Your task to perform on an android device: uninstall "Etsy: Buy & Sell Unique Items" Image 0: 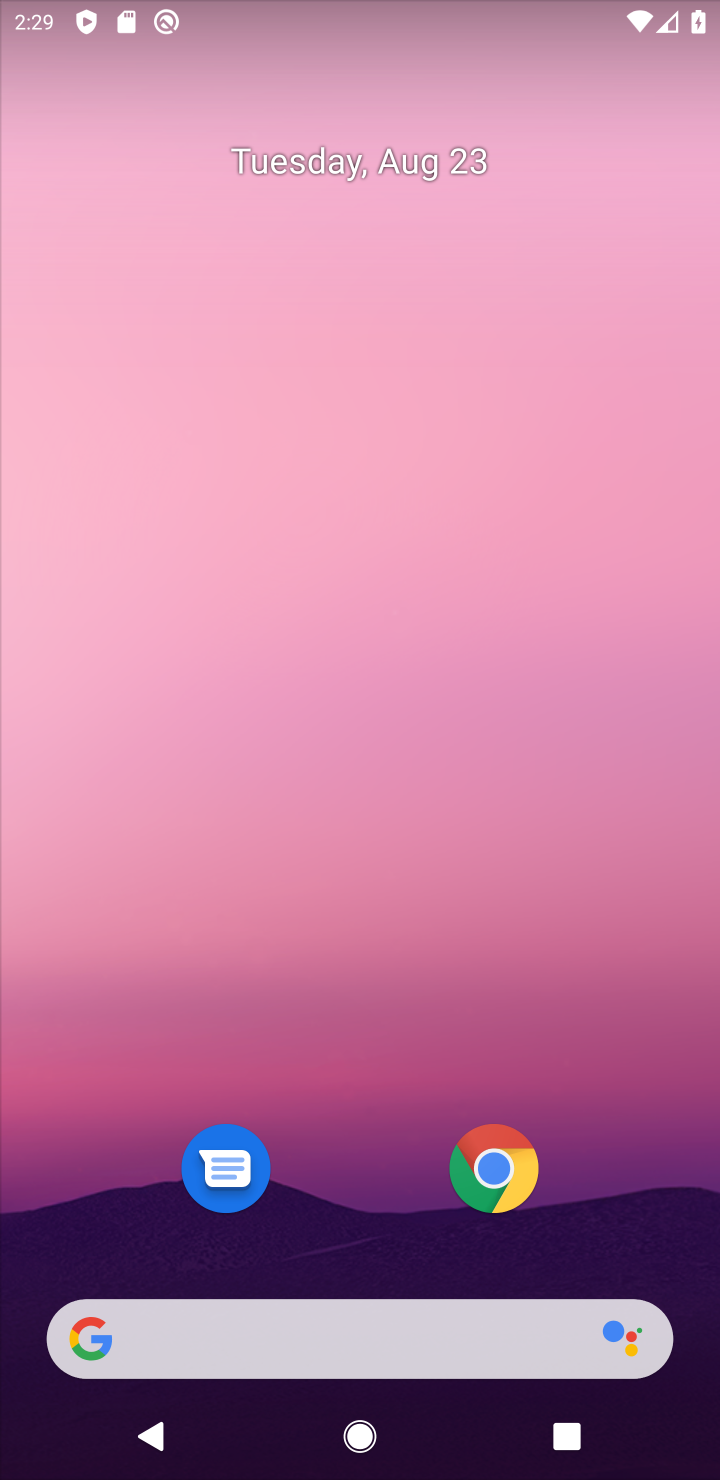
Step 0: drag from (420, 626) to (420, 264)
Your task to perform on an android device: uninstall "Etsy: Buy & Sell Unique Items" Image 1: 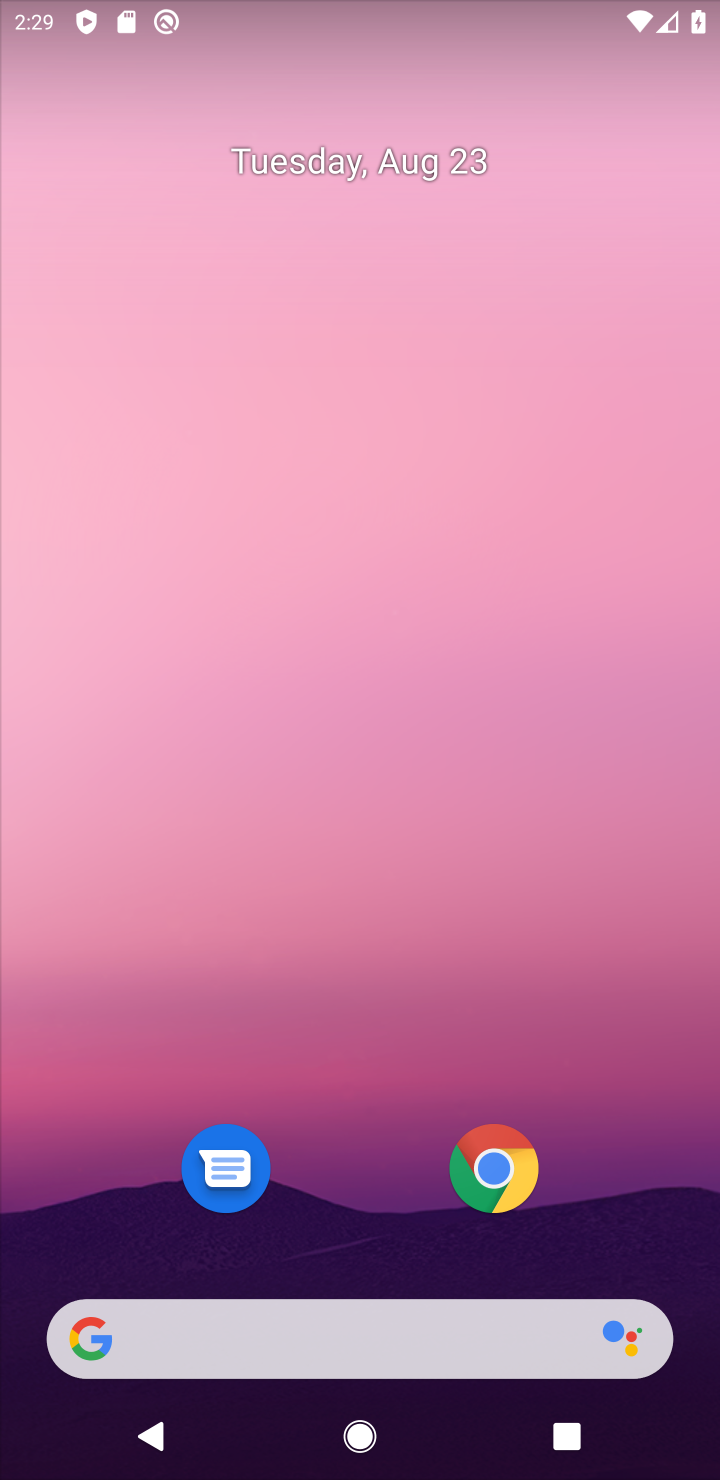
Step 1: drag from (307, 1040) to (304, 266)
Your task to perform on an android device: uninstall "Etsy: Buy & Sell Unique Items" Image 2: 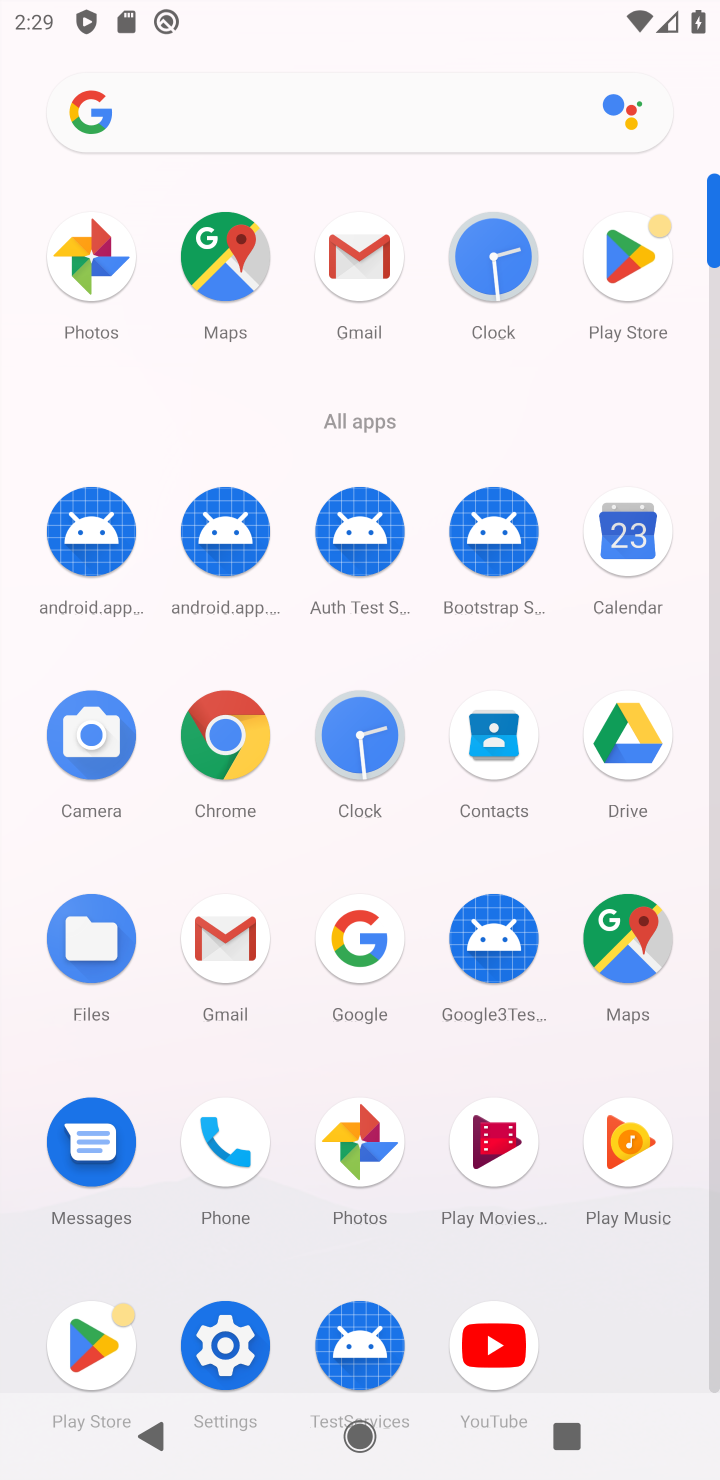
Step 2: click (70, 1355)
Your task to perform on an android device: uninstall "Etsy: Buy & Sell Unique Items" Image 3: 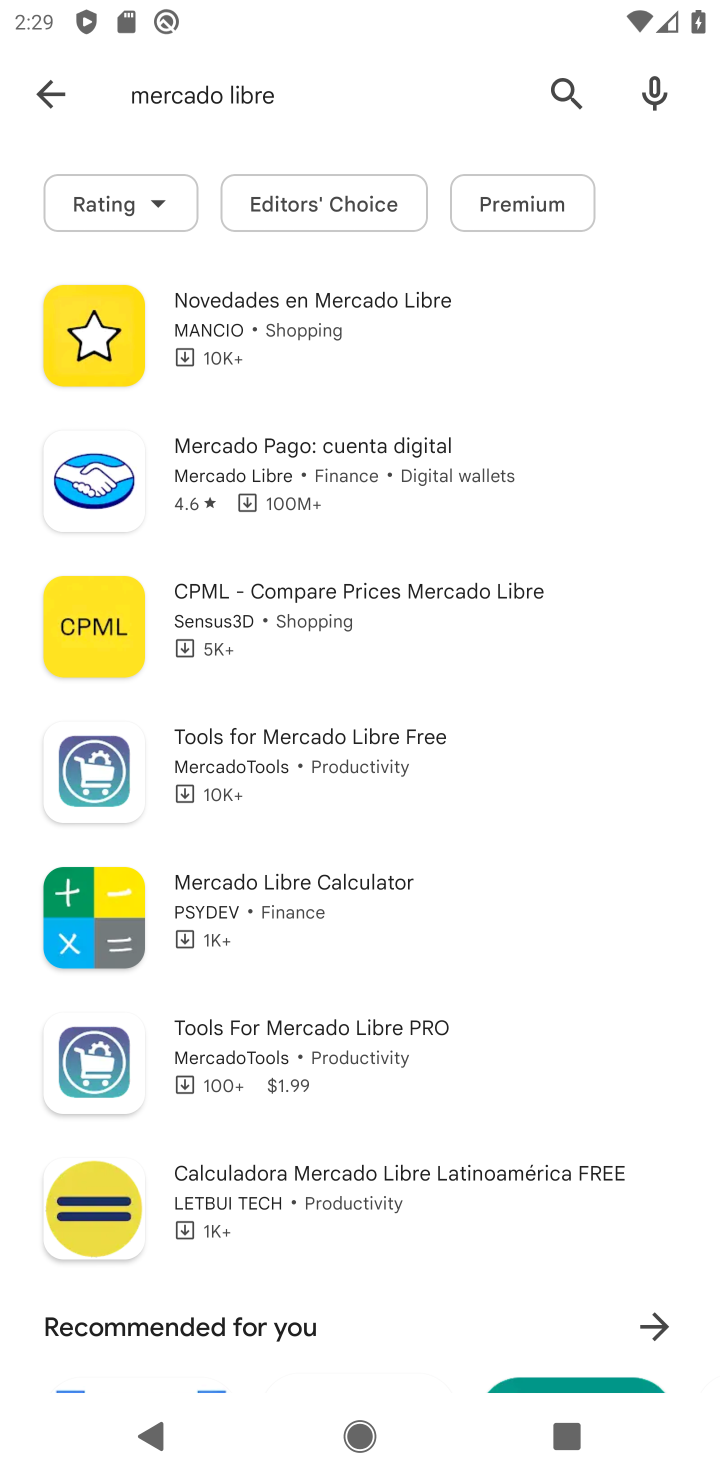
Step 3: click (576, 93)
Your task to perform on an android device: uninstall "Etsy: Buy & Sell Unique Items" Image 4: 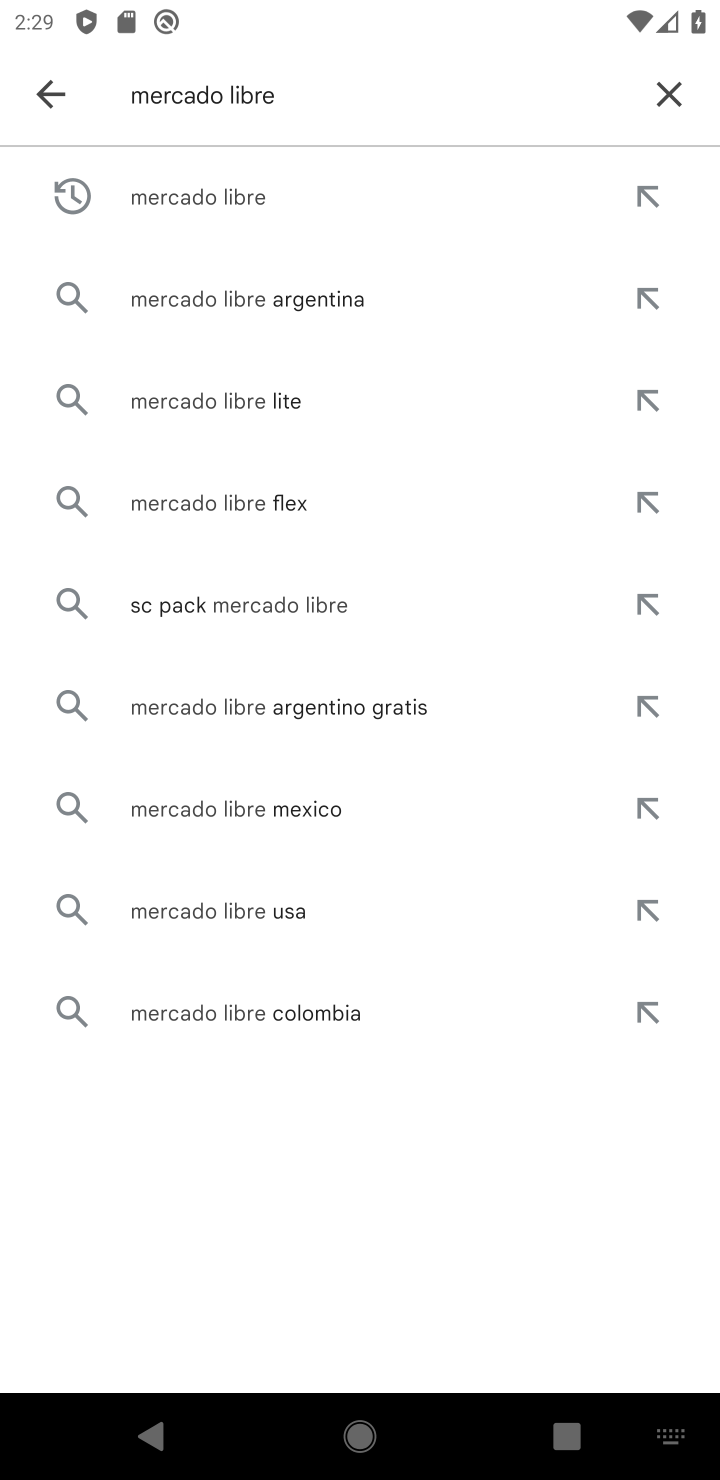
Step 4: click (677, 100)
Your task to perform on an android device: uninstall "Etsy: Buy & Sell Unique Items" Image 5: 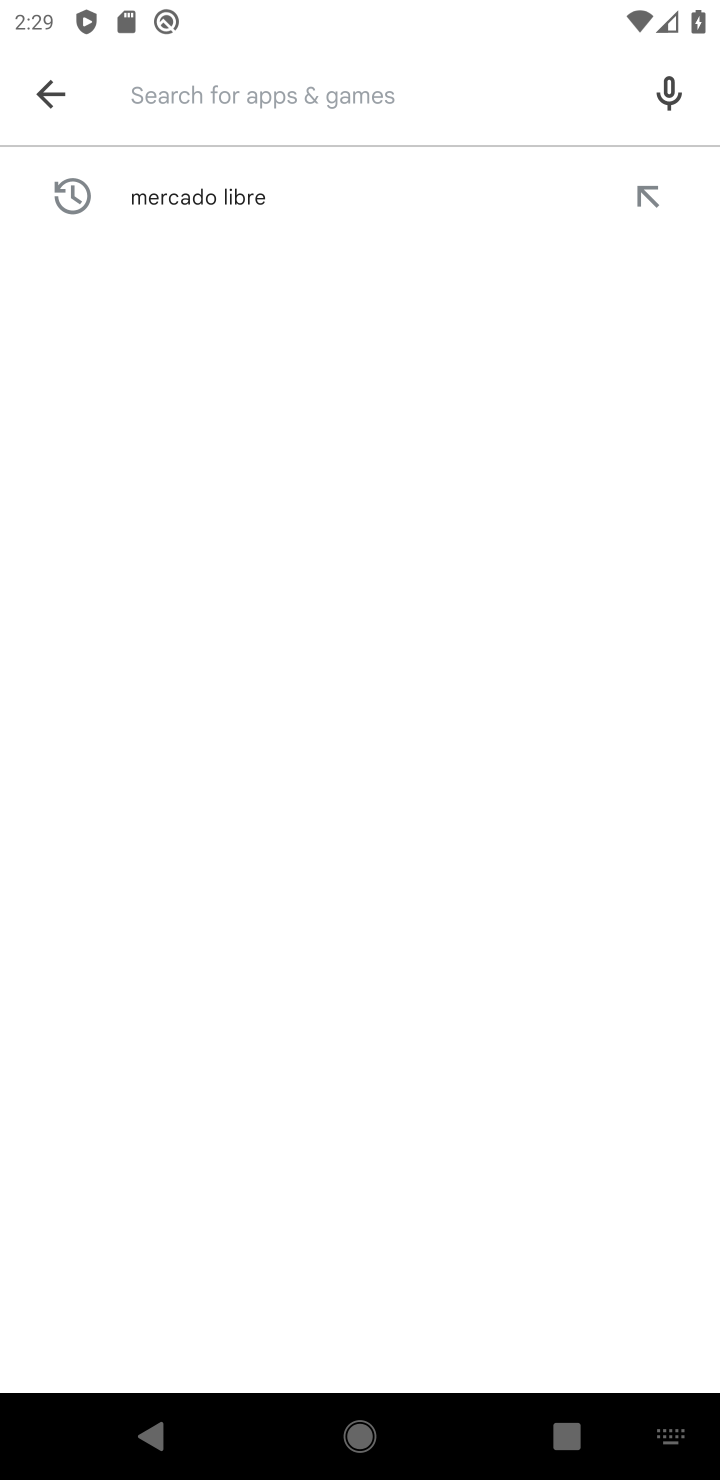
Step 5: type "Etsy: Buy & Sell Unique Items"
Your task to perform on an android device: uninstall "Etsy: Buy & Sell Unique Items" Image 6: 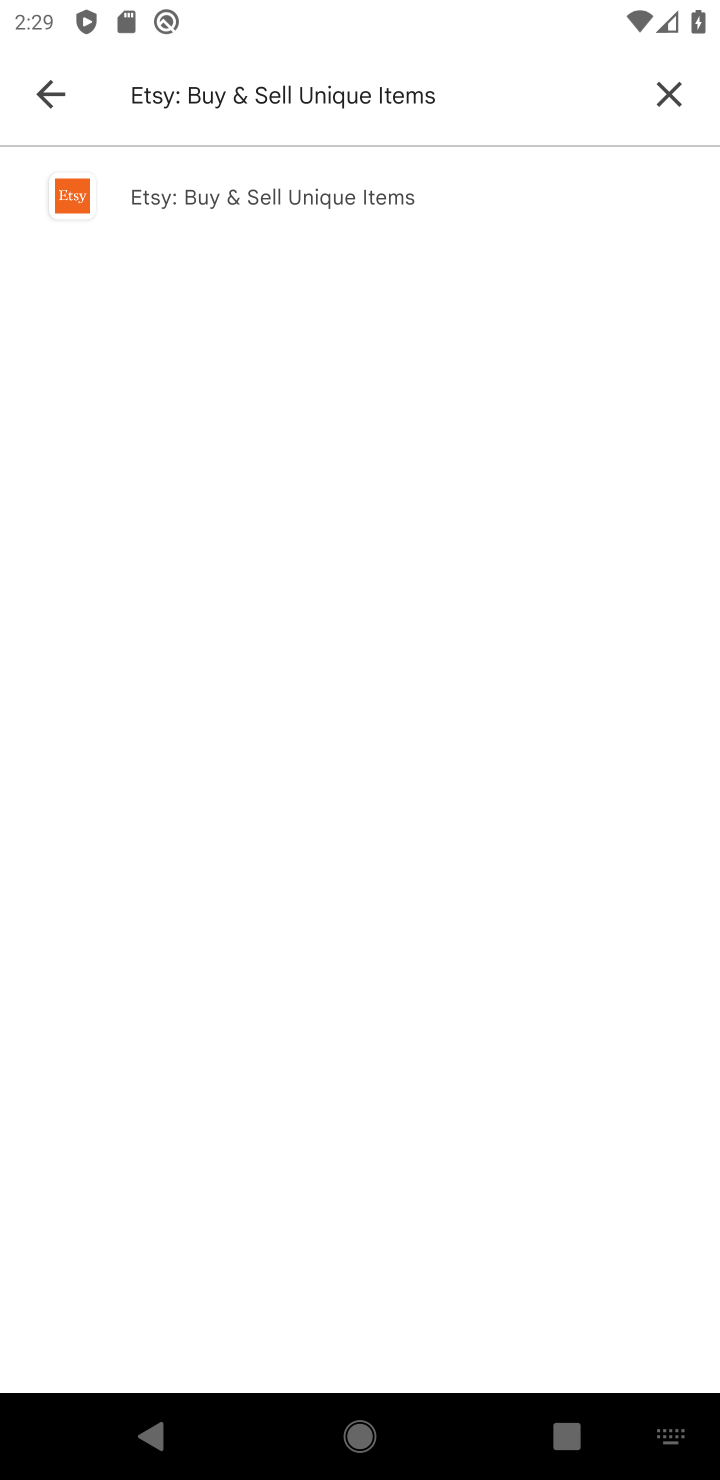
Step 6: click (237, 188)
Your task to perform on an android device: uninstall "Etsy: Buy & Sell Unique Items" Image 7: 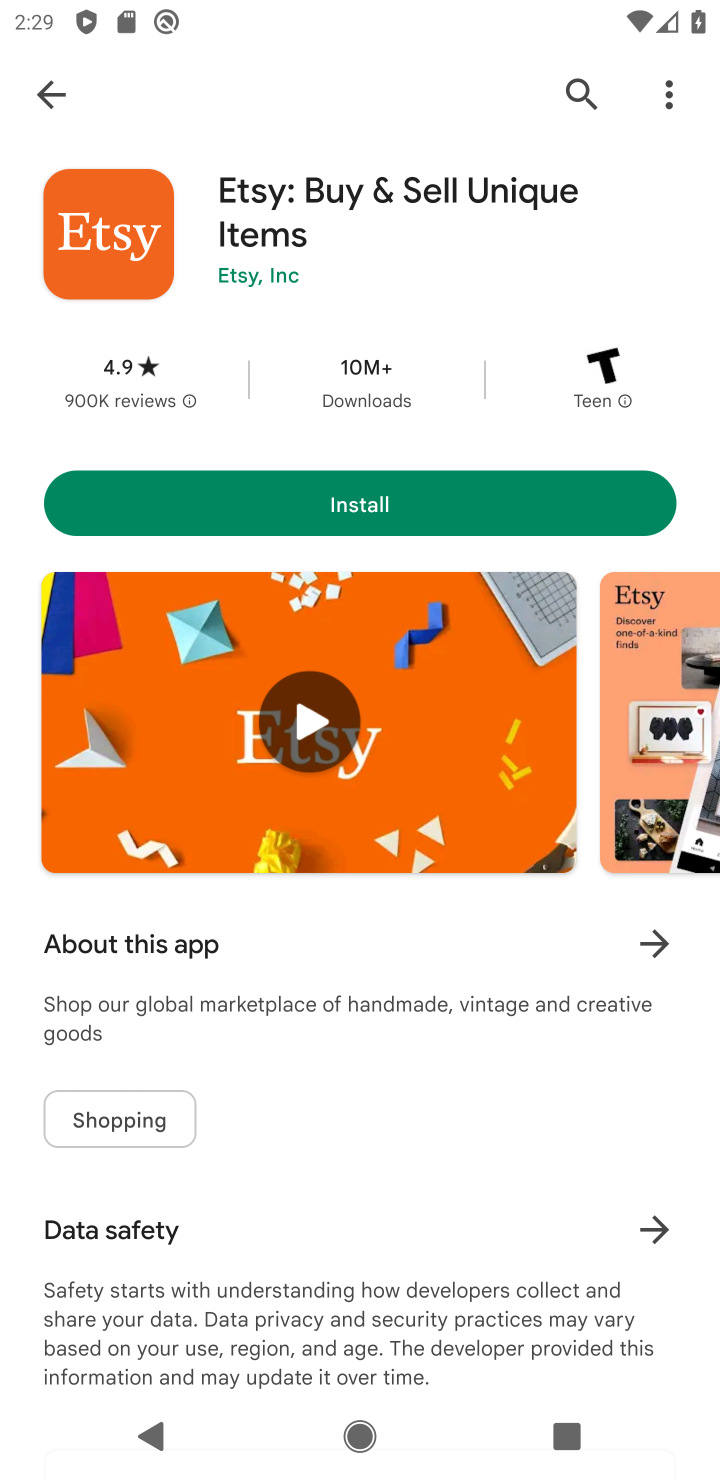
Step 7: task complete